Your task to perform on an android device: Go to Amazon Image 0: 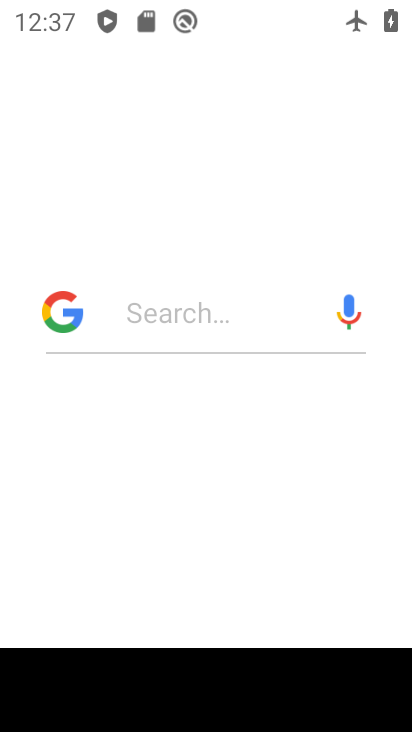
Step 0: click (267, 531)
Your task to perform on an android device: Go to Amazon Image 1: 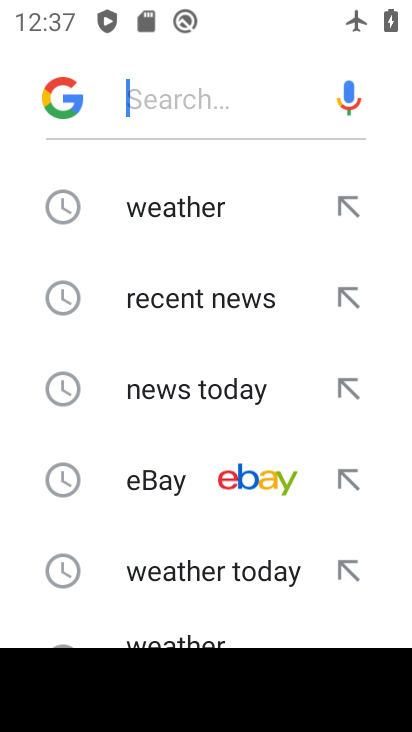
Step 1: press home button
Your task to perform on an android device: Go to Amazon Image 2: 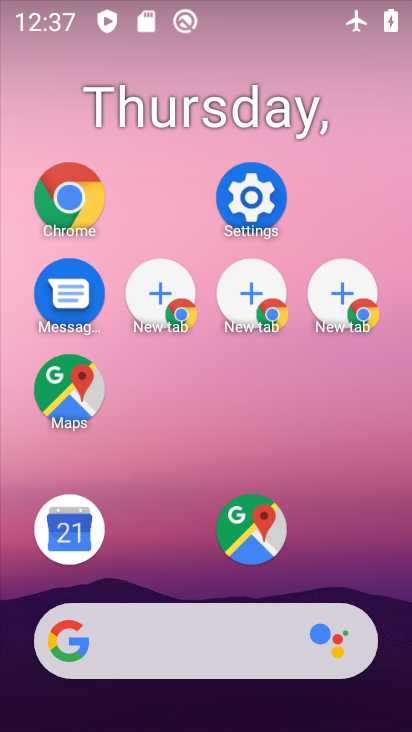
Step 2: drag from (312, 463) to (148, 145)
Your task to perform on an android device: Go to Amazon Image 3: 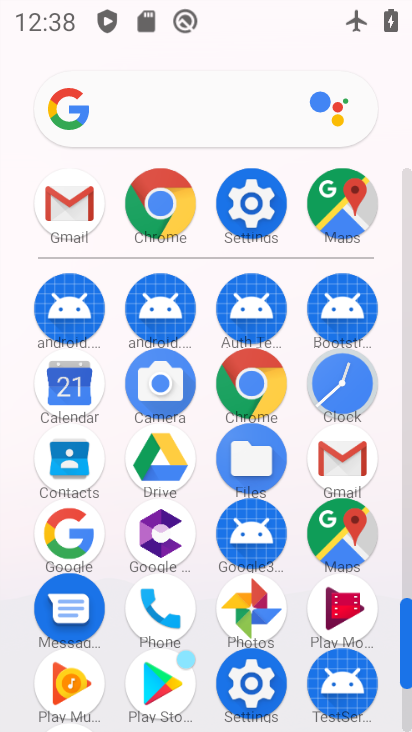
Step 3: click (164, 196)
Your task to perform on an android device: Go to Amazon Image 4: 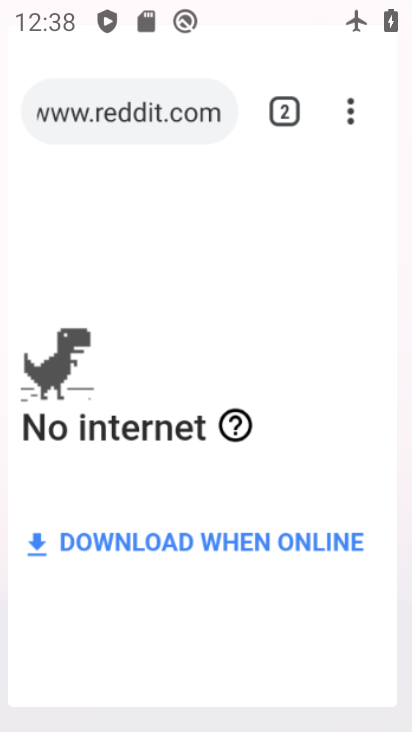
Step 4: click (164, 194)
Your task to perform on an android device: Go to Amazon Image 5: 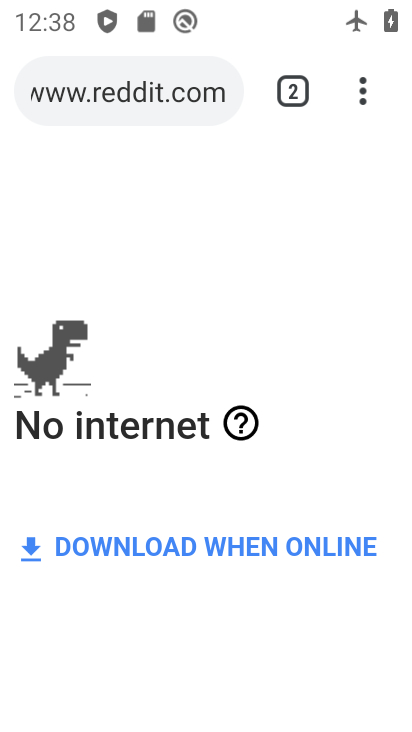
Step 5: click (364, 95)
Your task to perform on an android device: Go to Amazon Image 6: 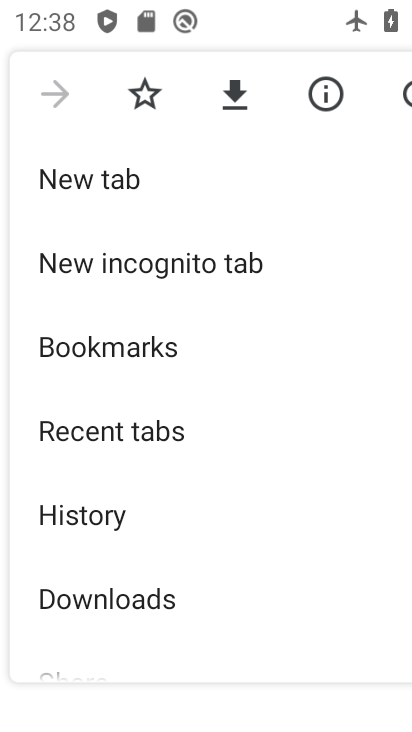
Step 6: click (364, 95)
Your task to perform on an android device: Go to Amazon Image 7: 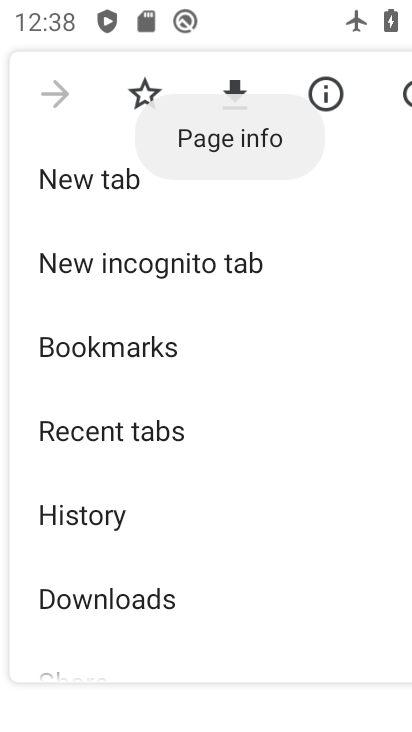
Step 7: click (80, 173)
Your task to perform on an android device: Go to Amazon Image 8: 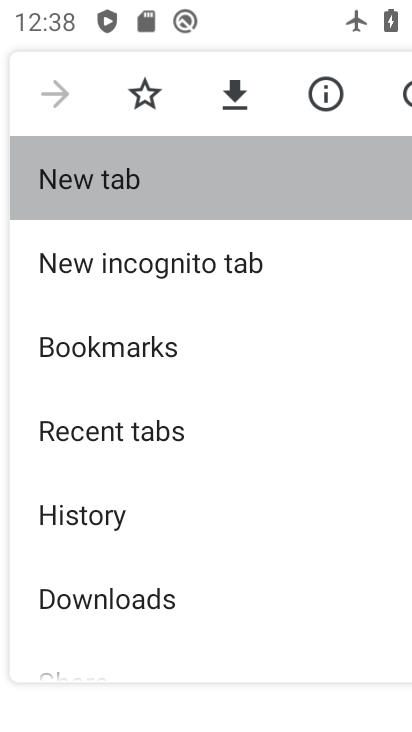
Step 8: click (81, 172)
Your task to perform on an android device: Go to Amazon Image 9: 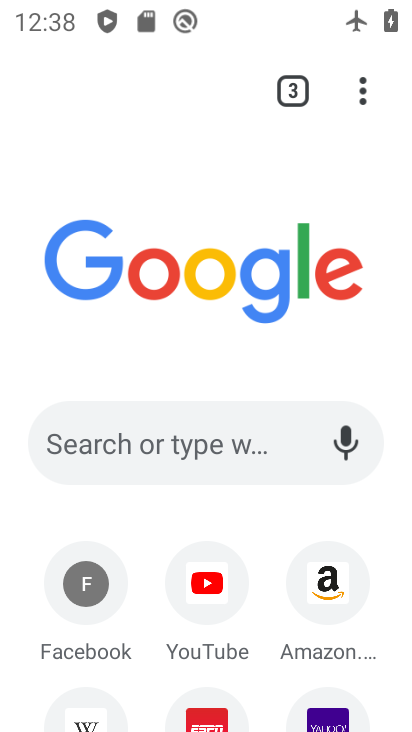
Step 9: click (314, 584)
Your task to perform on an android device: Go to Amazon Image 10: 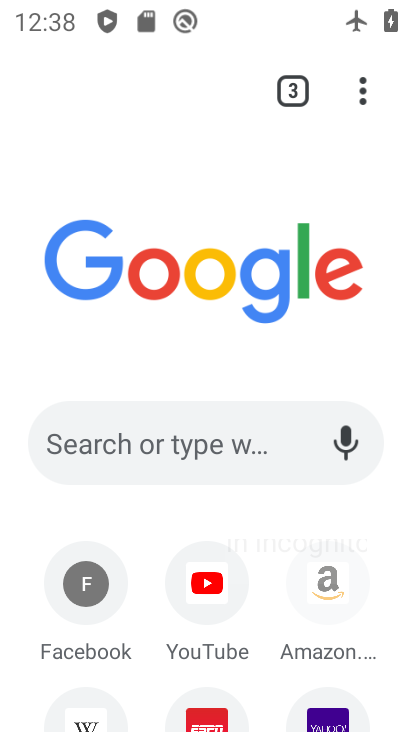
Step 10: click (314, 584)
Your task to perform on an android device: Go to Amazon Image 11: 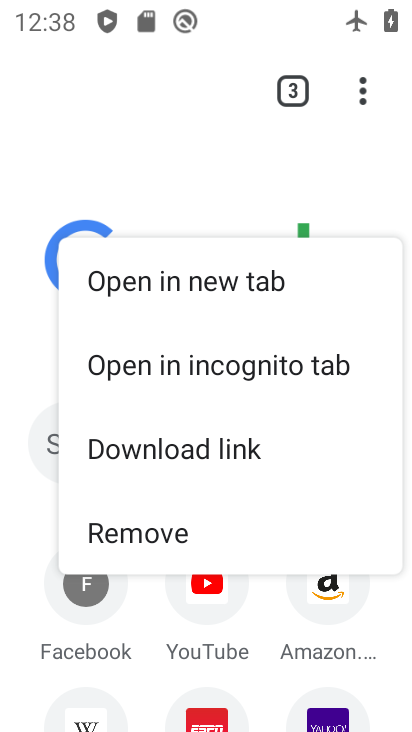
Step 11: click (314, 584)
Your task to perform on an android device: Go to Amazon Image 12: 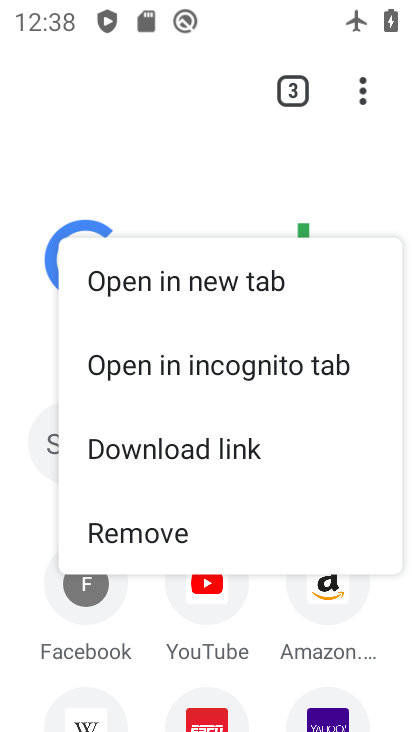
Step 12: click (314, 584)
Your task to perform on an android device: Go to Amazon Image 13: 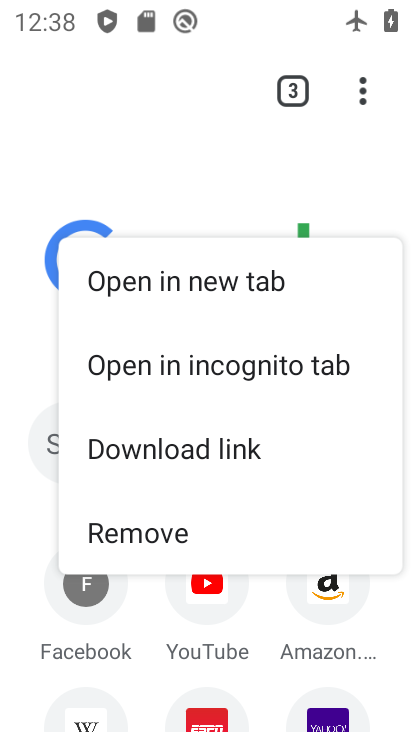
Step 13: click (314, 584)
Your task to perform on an android device: Go to Amazon Image 14: 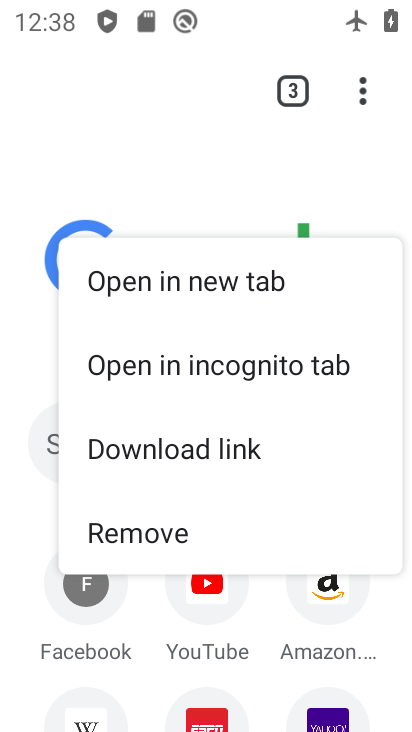
Step 14: click (225, 285)
Your task to perform on an android device: Go to Amazon Image 15: 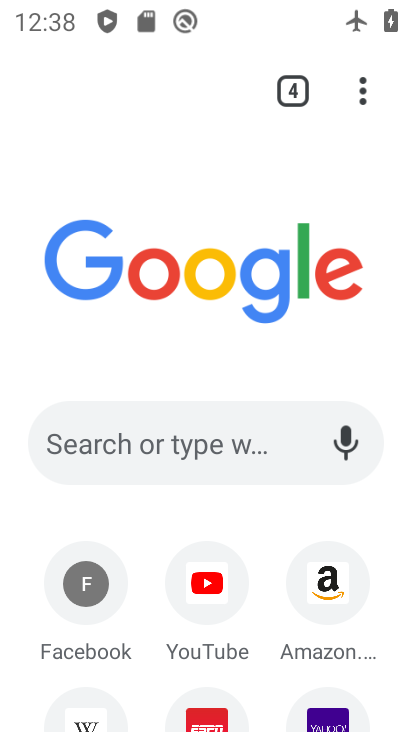
Step 15: task complete